Your task to perform on an android device: turn off location history Image 0: 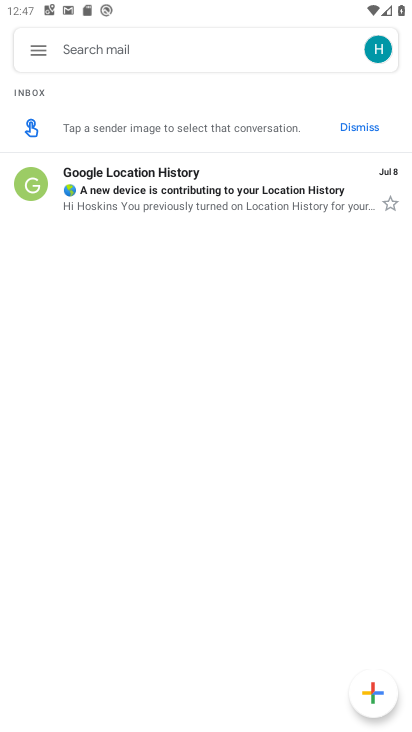
Step 0: press home button
Your task to perform on an android device: turn off location history Image 1: 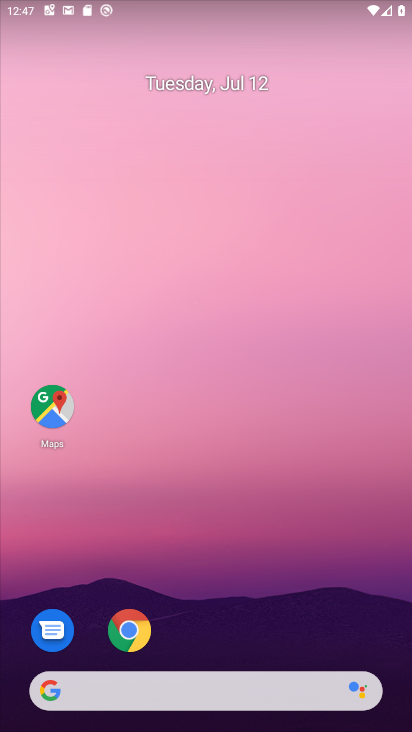
Step 1: drag from (250, 576) to (260, 195)
Your task to perform on an android device: turn off location history Image 2: 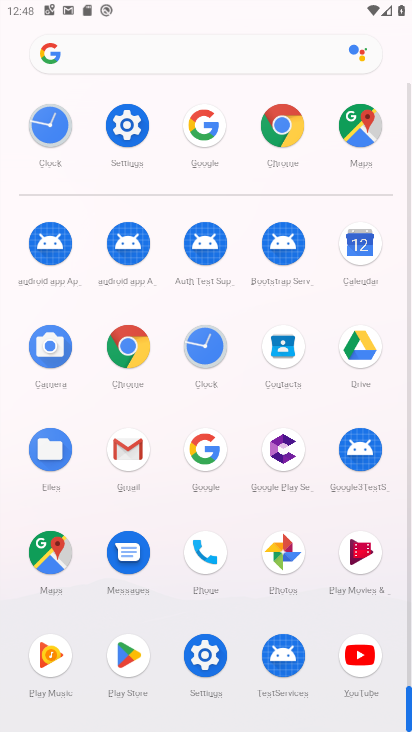
Step 2: click (117, 131)
Your task to perform on an android device: turn off location history Image 3: 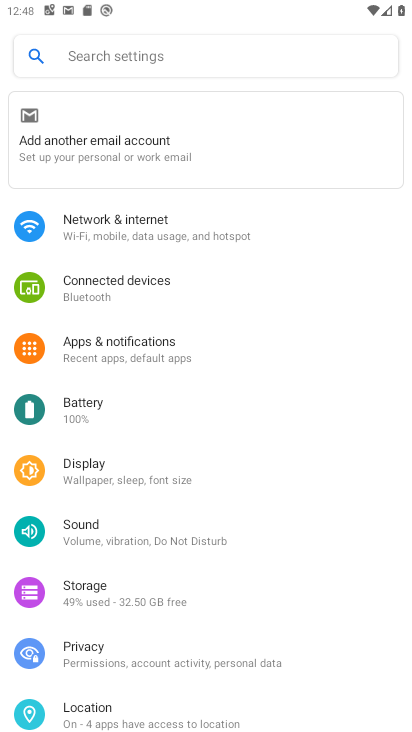
Step 3: click (200, 723)
Your task to perform on an android device: turn off location history Image 4: 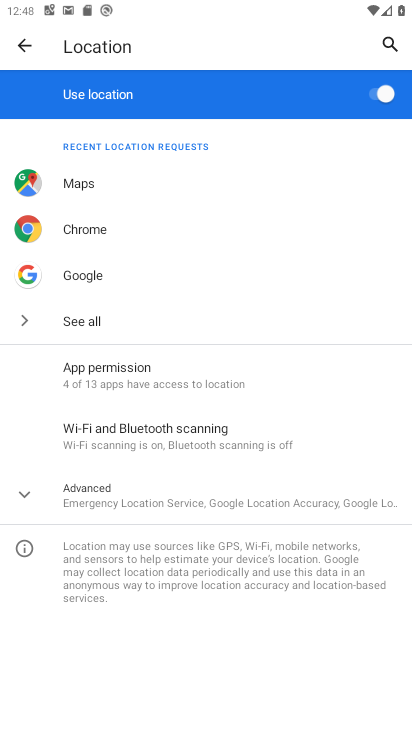
Step 4: click (190, 495)
Your task to perform on an android device: turn off location history Image 5: 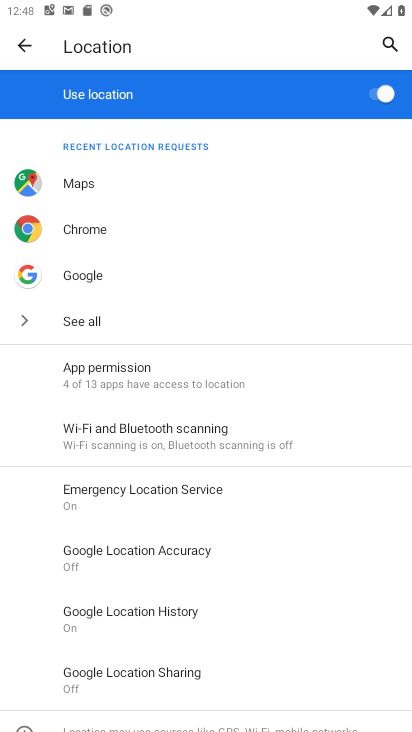
Step 5: click (192, 616)
Your task to perform on an android device: turn off location history Image 6: 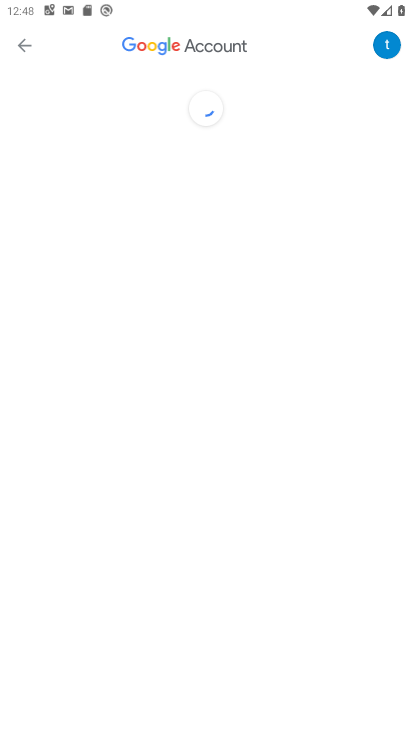
Step 6: click (360, 528)
Your task to perform on an android device: turn off location history Image 7: 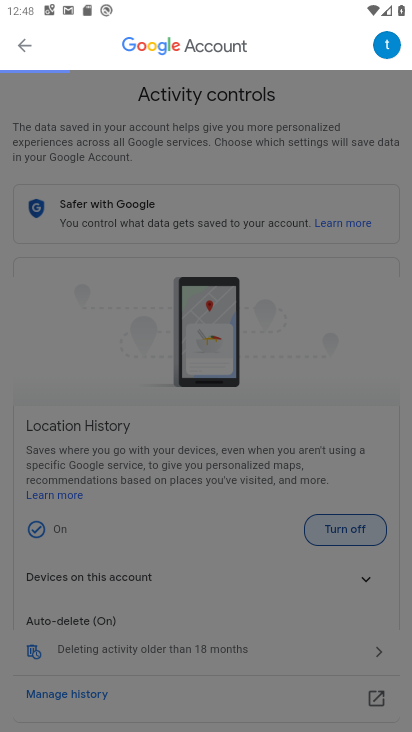
Step 7: click (360, 528)
Your task to perform on an android device: turn off location history Image 8: 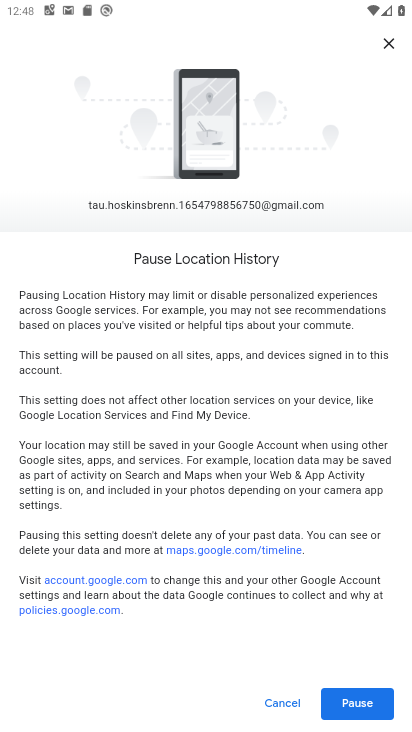
Step 8: click (364, 711)
Your task to perform on an android device: turn off location history Image 9: 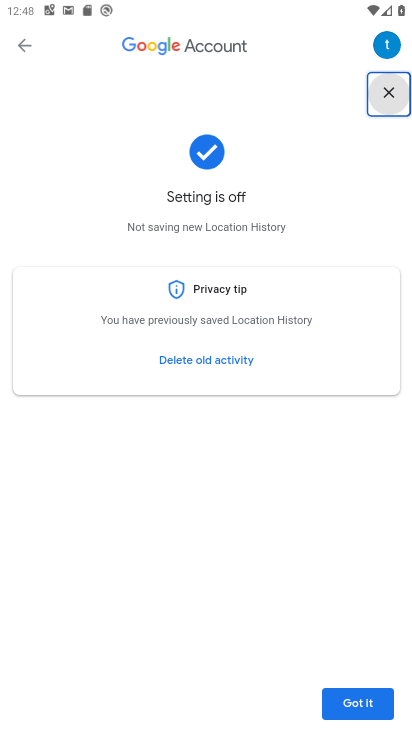
Step 9: click (364, 711)
Your task to perform on an android device: turn off location history Image 10: 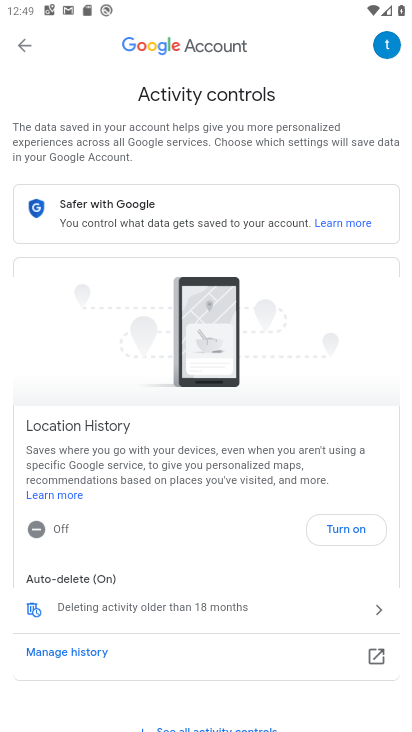
Step 10: task complete